Your task to perform on an android device: Add razer huntsman to the cart on target Image 0: 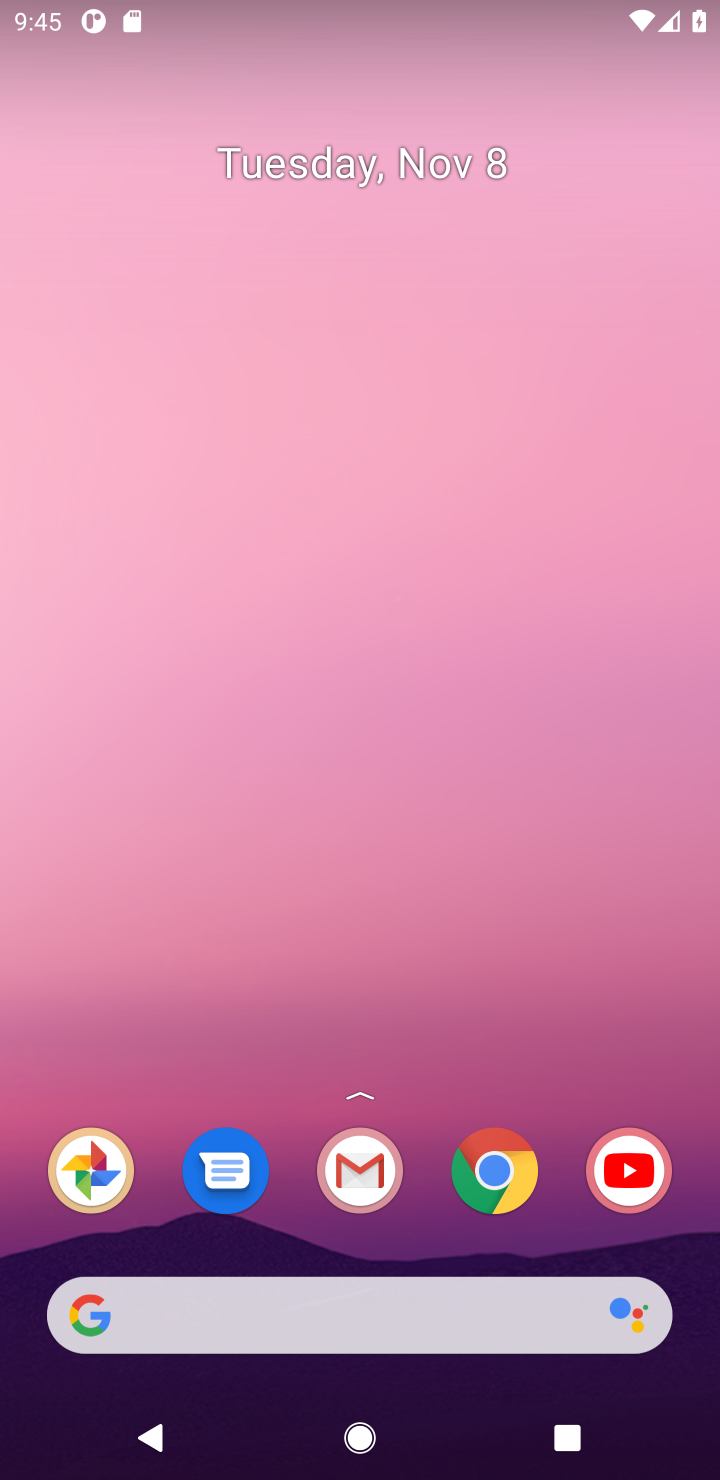
Step 0: press home button
Your task to perform on an android device: Add razer huntsman to the cart on target Image 1: 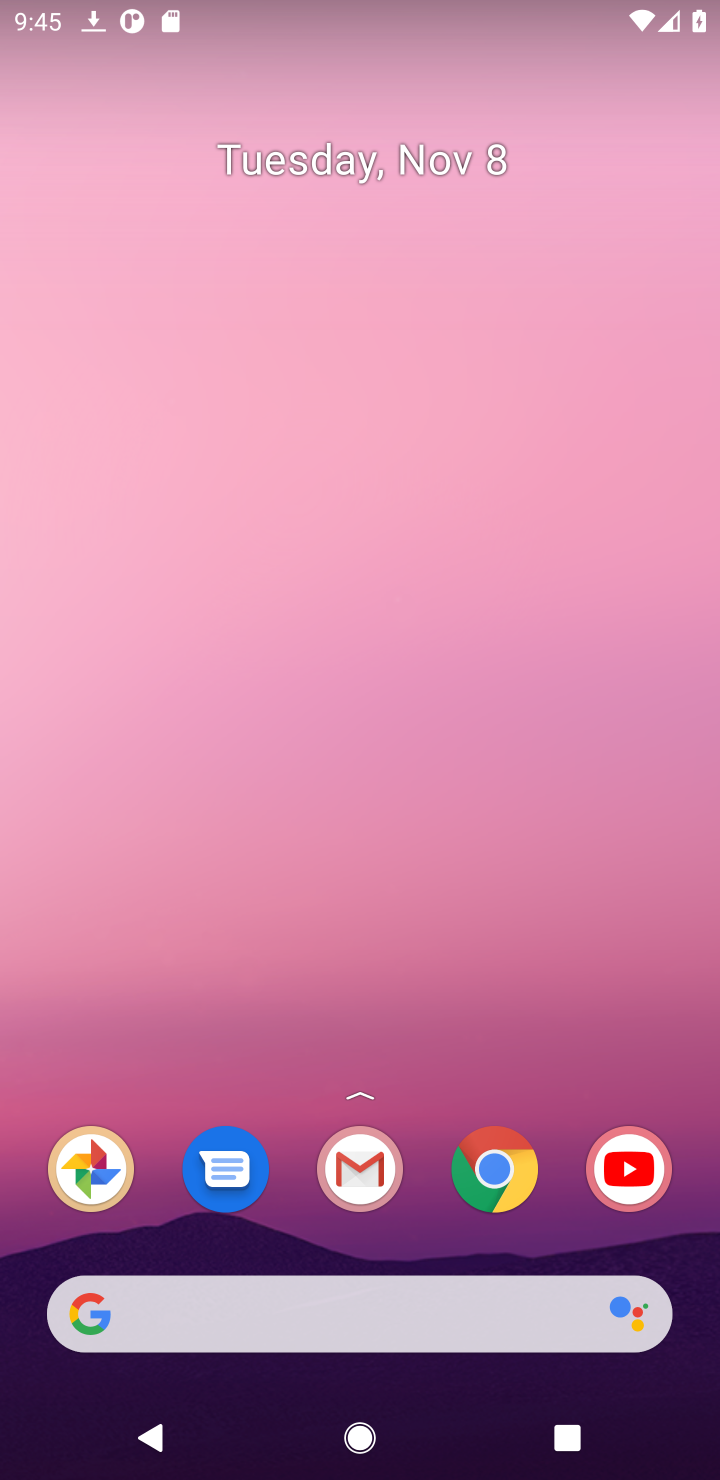
Step 1: click (515, 1157)
Your task to perform on an android device: Add razer huntsman to the cart on target Image 2: 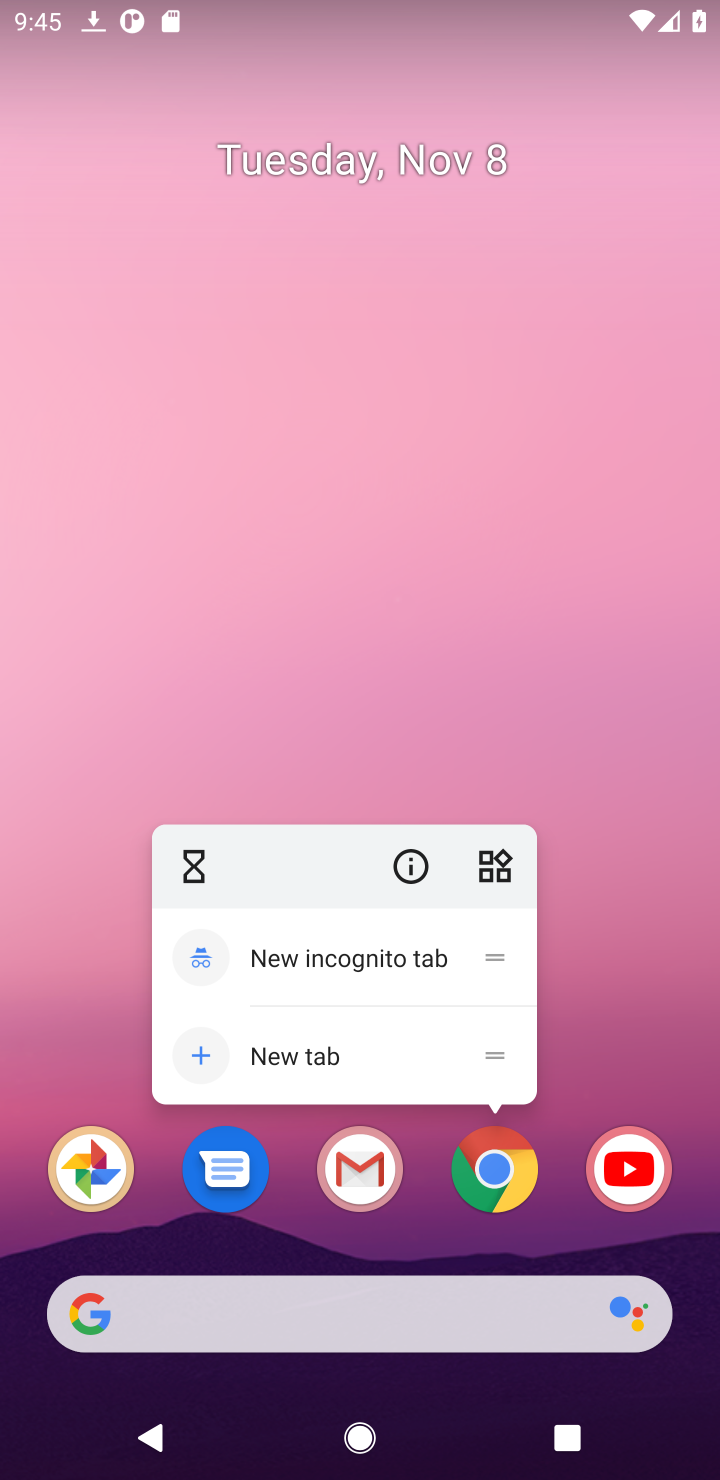
Step 2: click (515, 1157)
Your task to perform on an android device: Add razer huntsman to the cart on target Image 3: 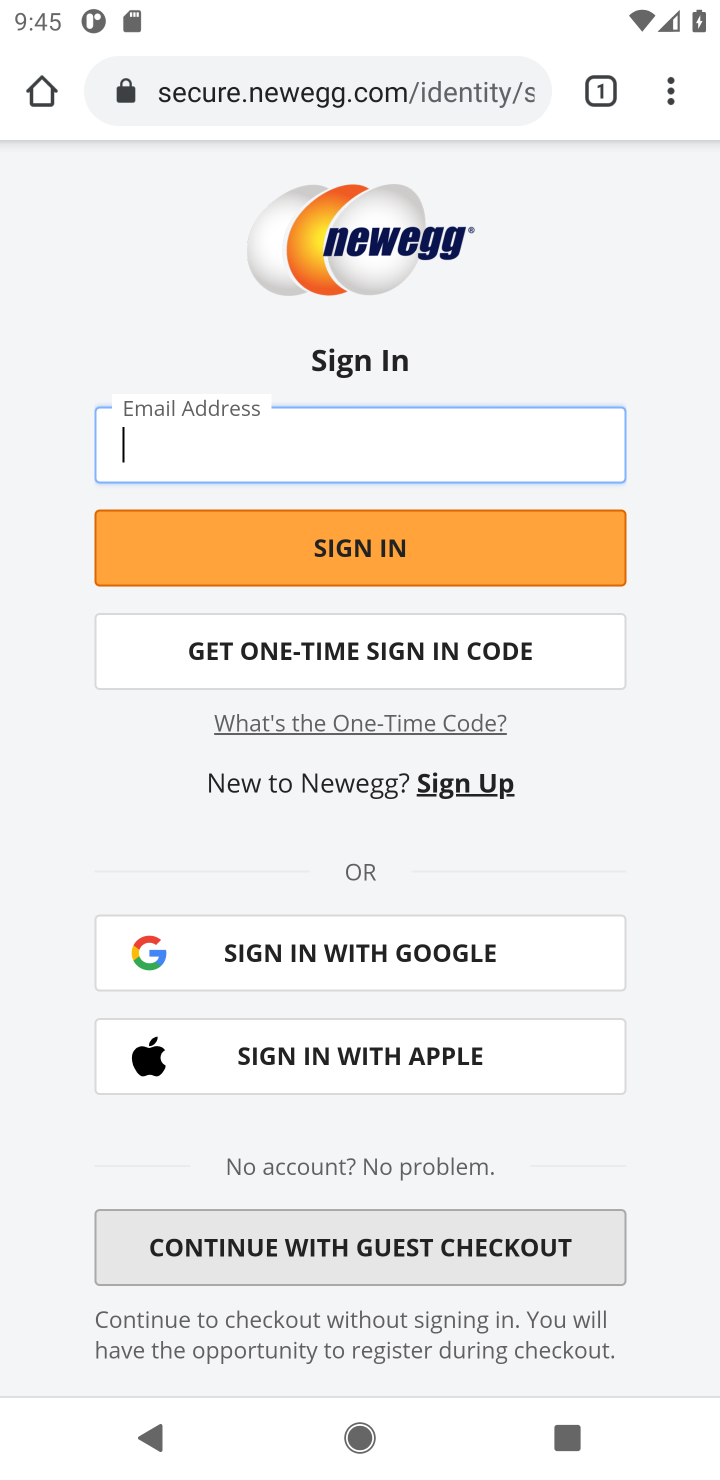
Step 3: click (513, 80)
Your task to perform on an android device: Add razer huntsman to the cart on target Image 4: 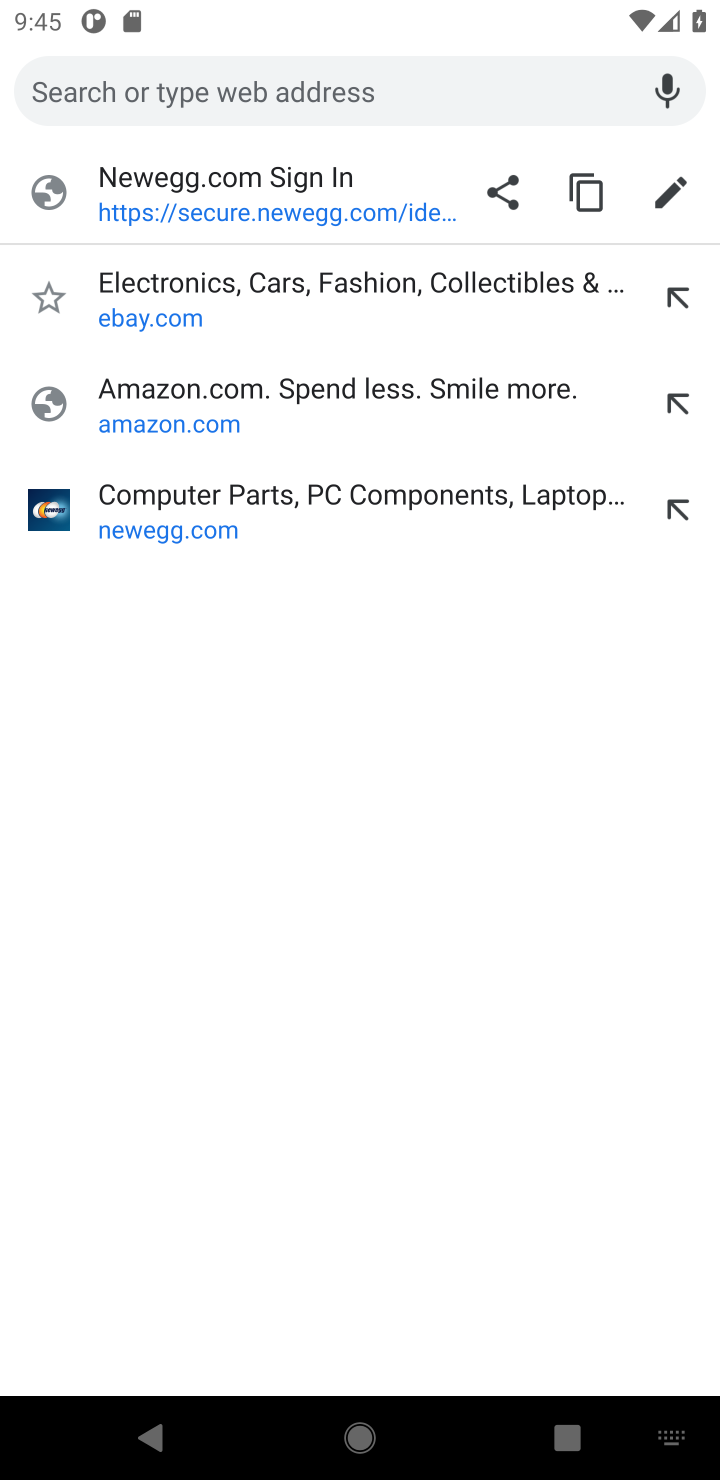
Step 4: press enter
Your task to perform on an android device: Add razer huntsman to the cart on target Image 5: 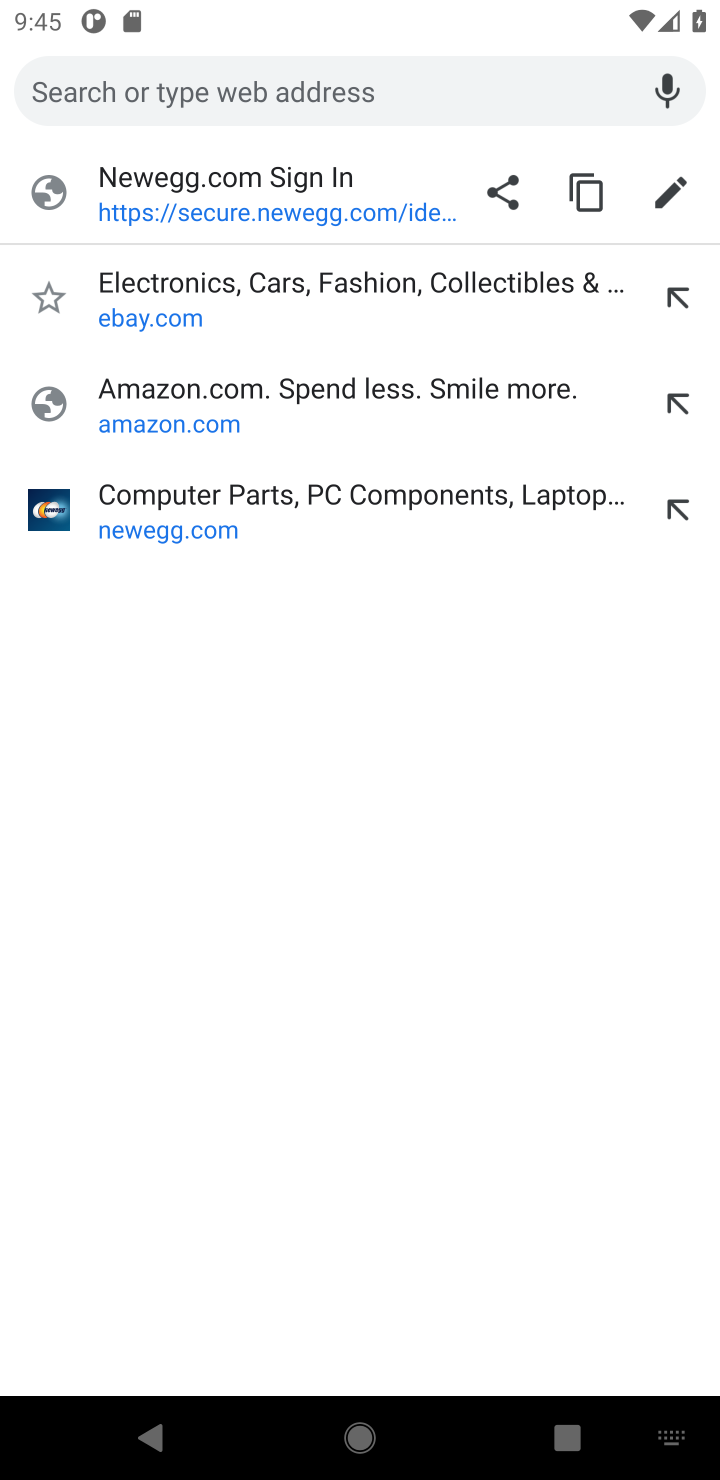
Step 5: type "target"
Your task to perform on an android device: Add razer huntsman to the cart on target Image 6: 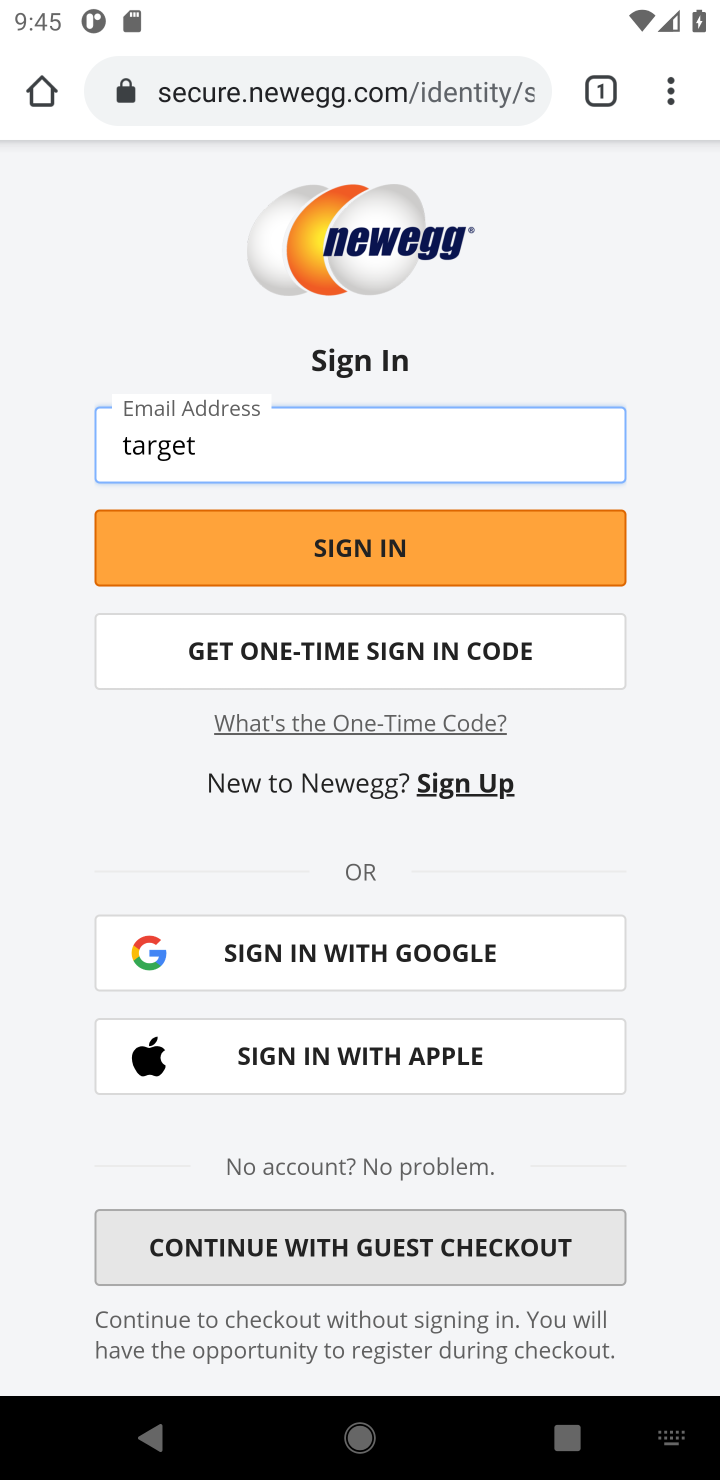
Step 6: click (43, 91)
Your task to perform on an android device: Add razer huntsman to the cart on target Image 7: 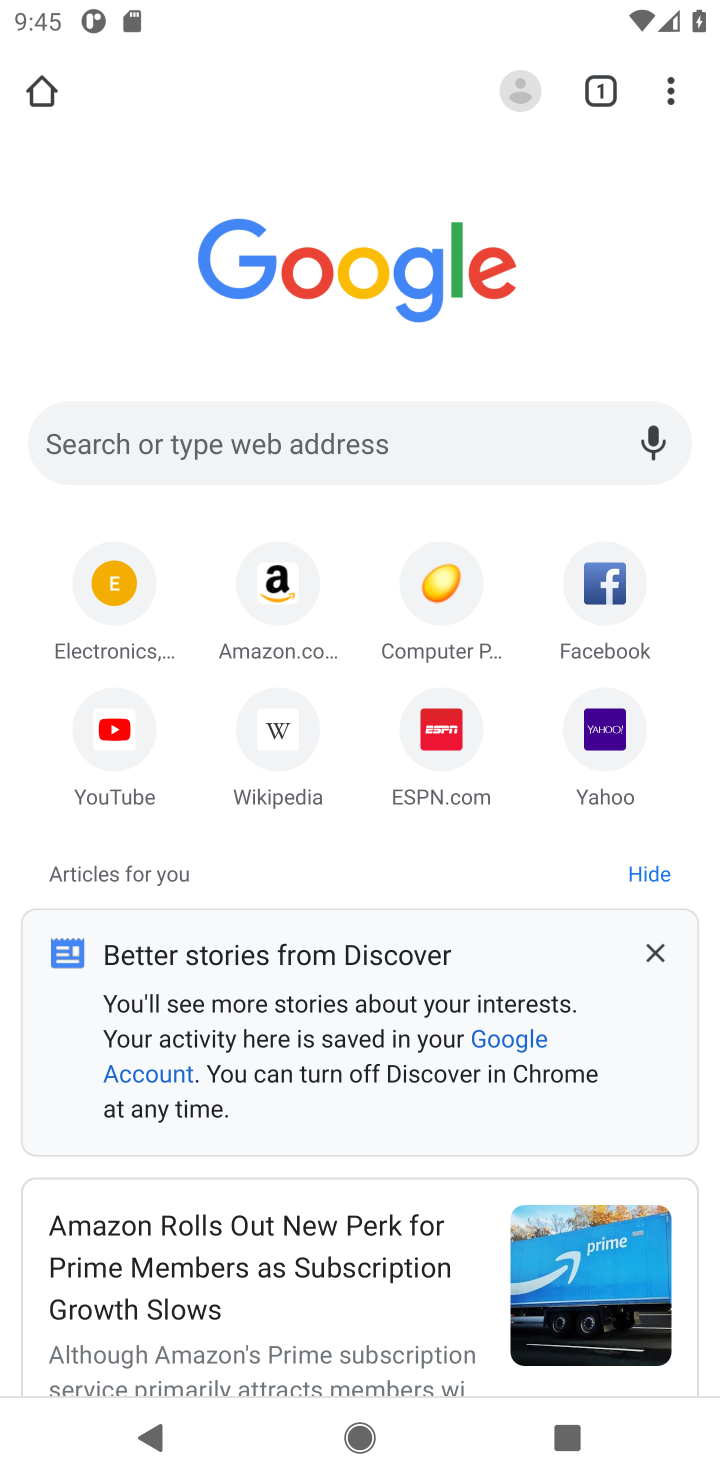
Step 7: click (447, 436)
Your task to perform on an android device: Add razer huntsman to the cart on target Image 8: 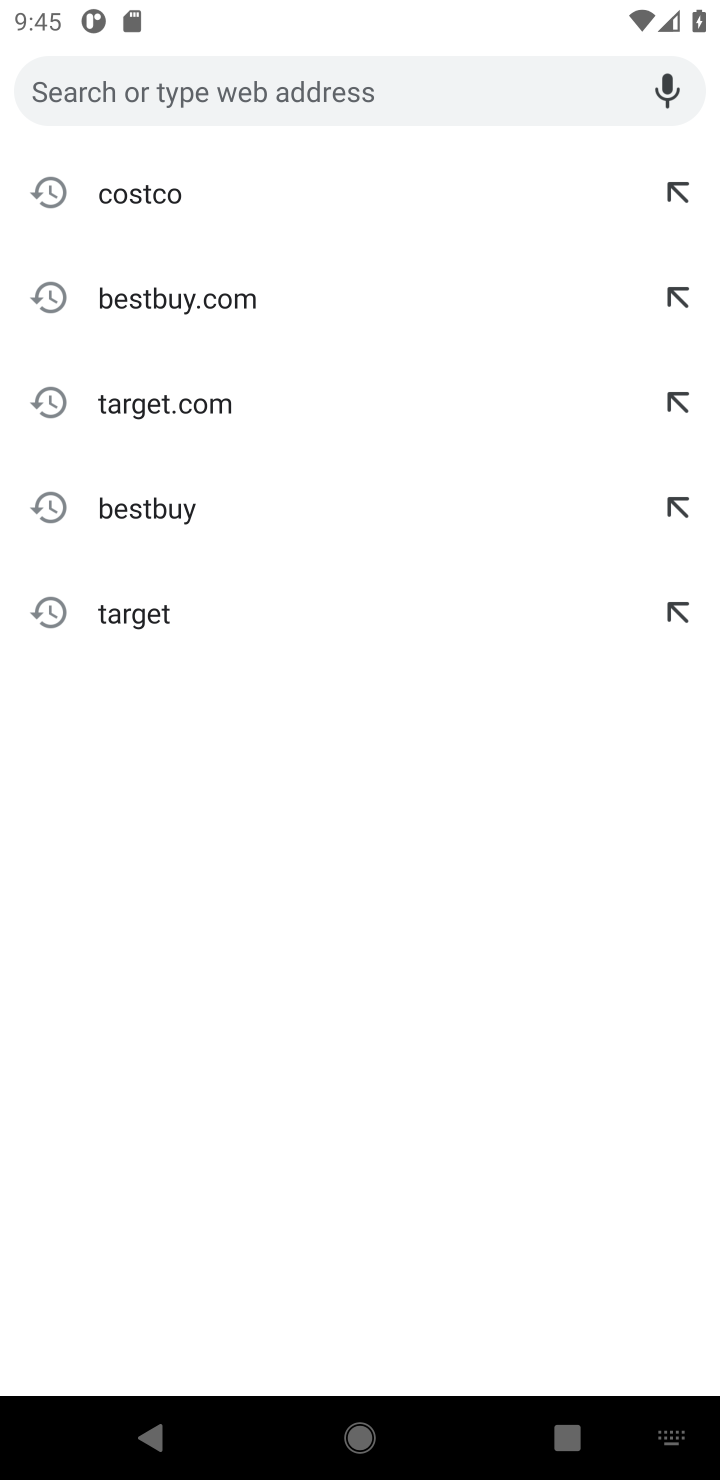
Step 8: click (149, 393)
Your task to perform on an android device: Add razer huntsman to the cart on target Image 9: 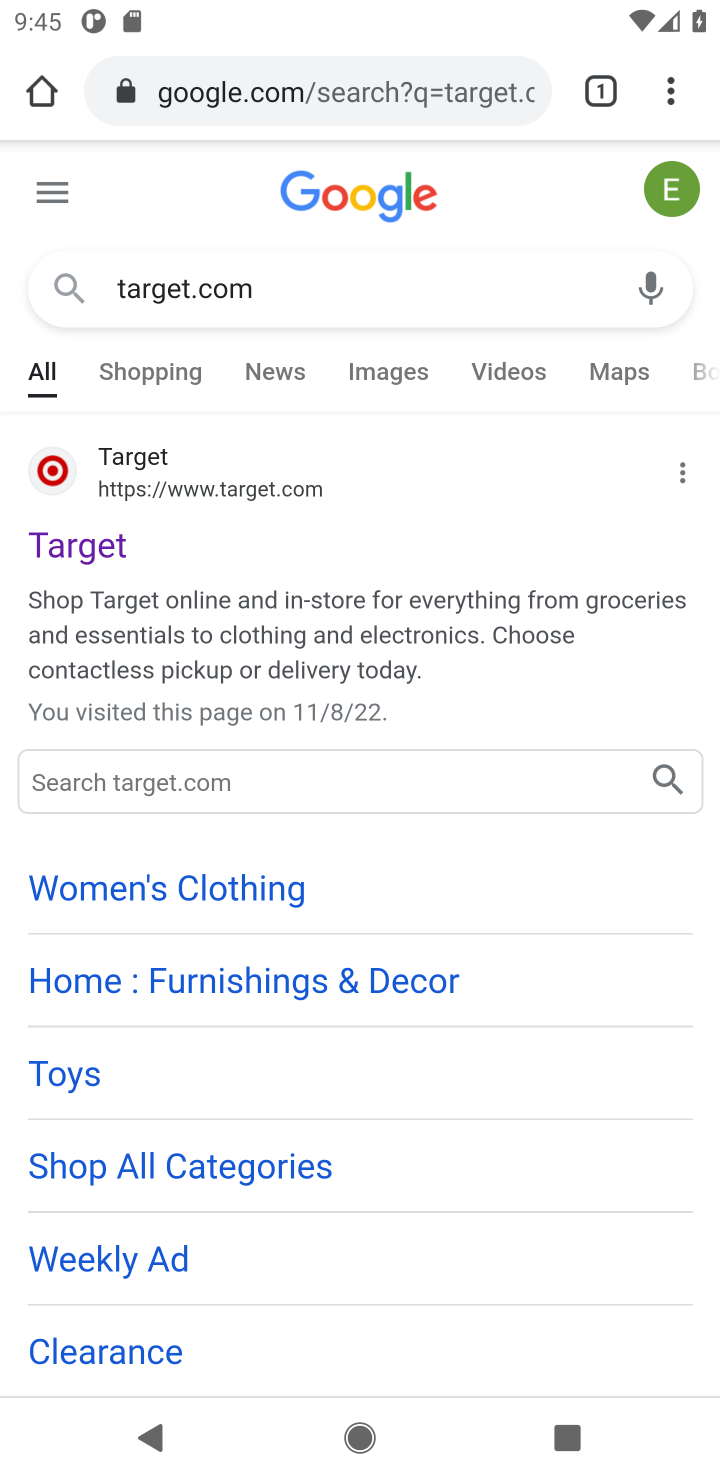
Step 9: click (200, 488)
Your task to perform on an android device: Add razer huntsman to the cart on target Image 10: 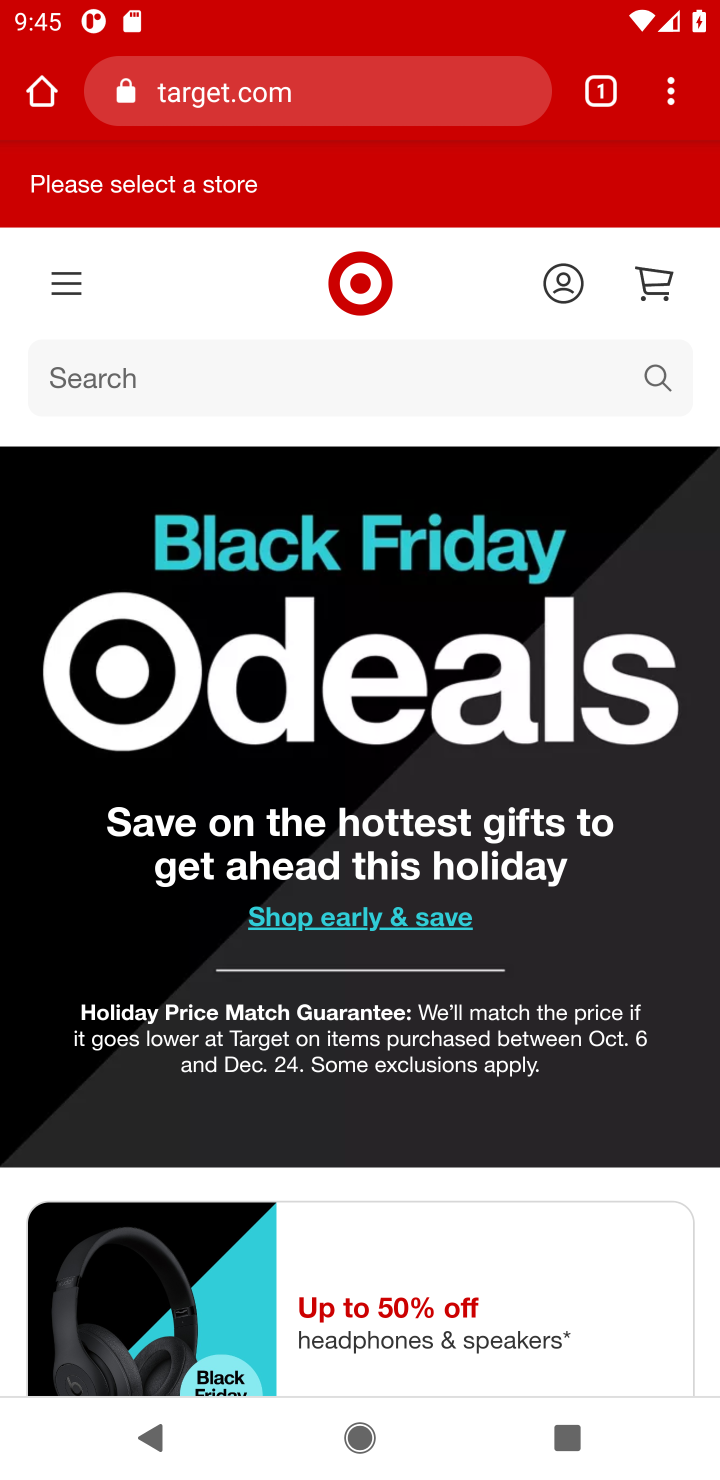
Step 10: click (654, 387)
Your task to perform on an android device: Add razer huntsman to the cart on target Image 11: 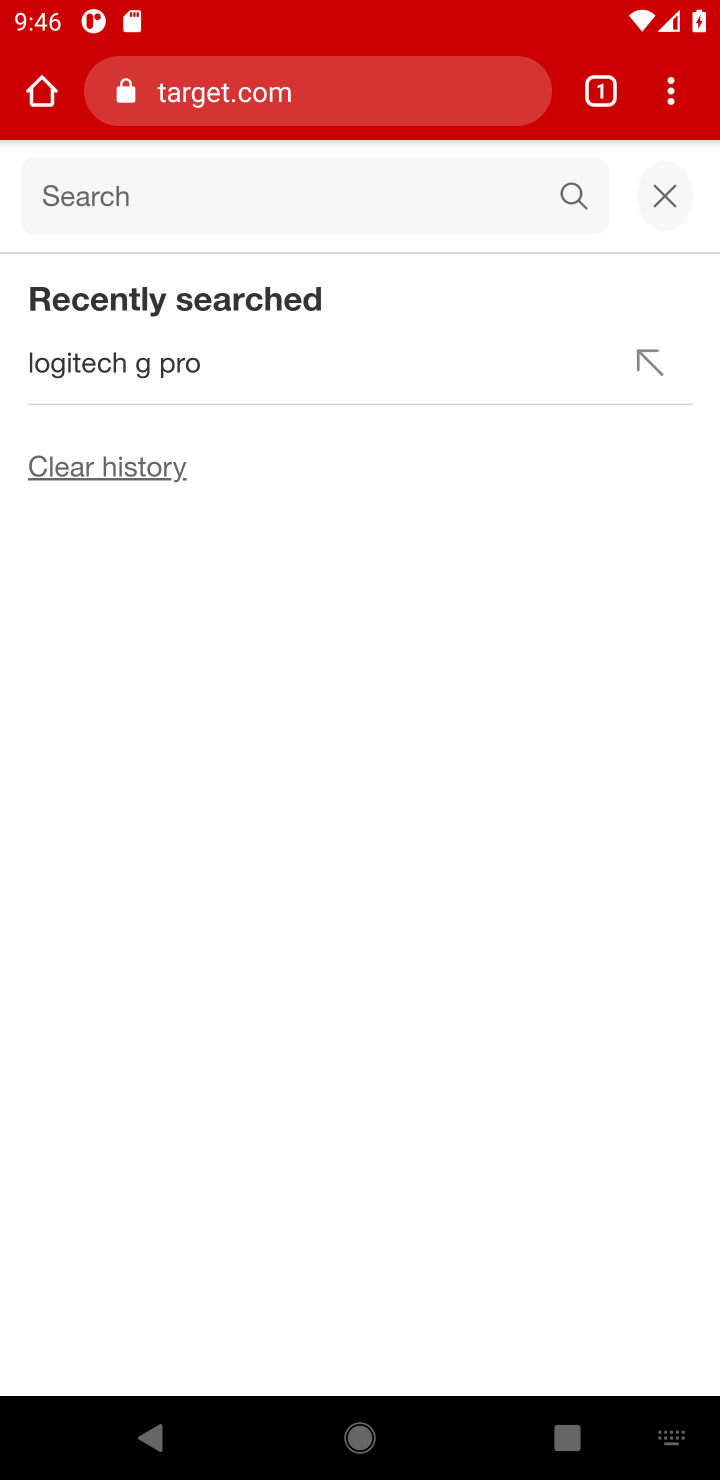
Step 11: type "razer huntsman"
Your task to perform on an android device: Add razer huntsman to the cart on target Image 12: 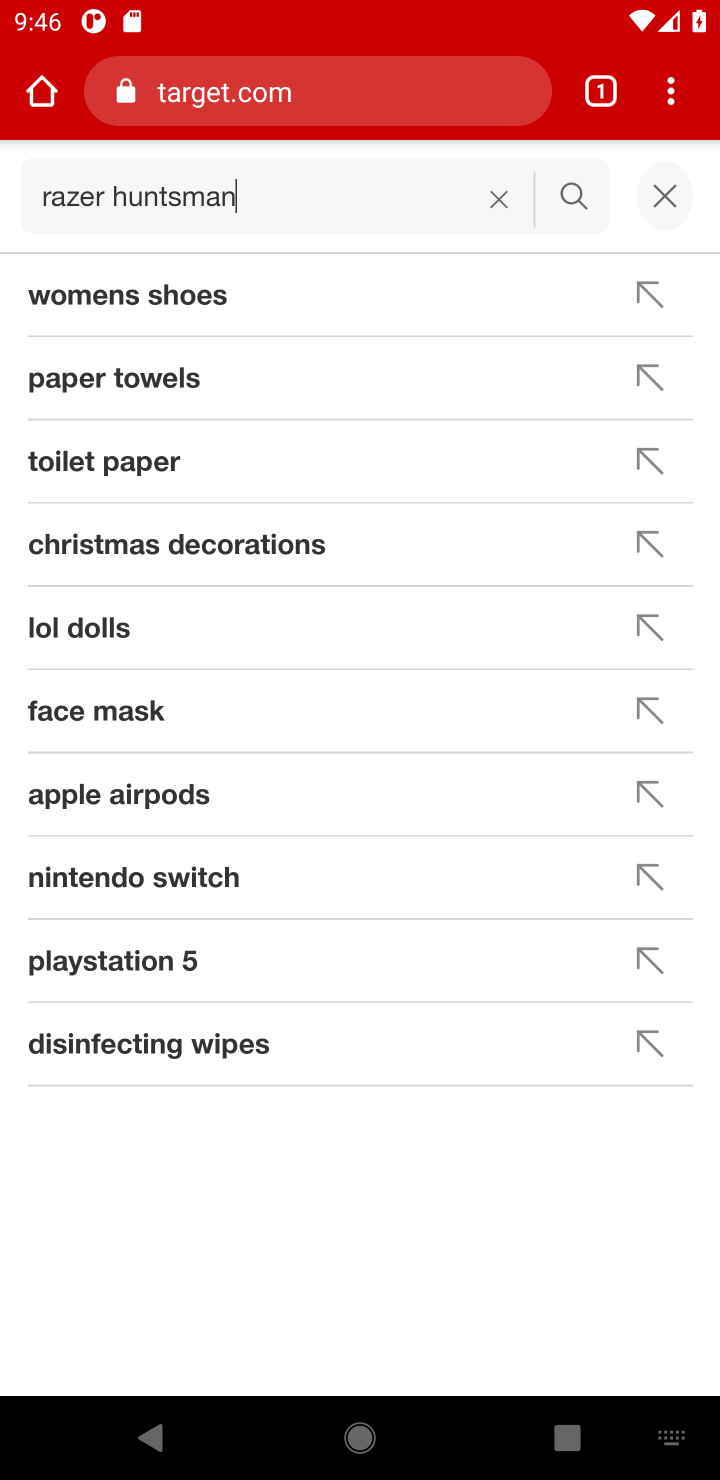
Step 12: press enter
Your task to perform on an android device: Add razer huntsman to the cart on target Image 13: 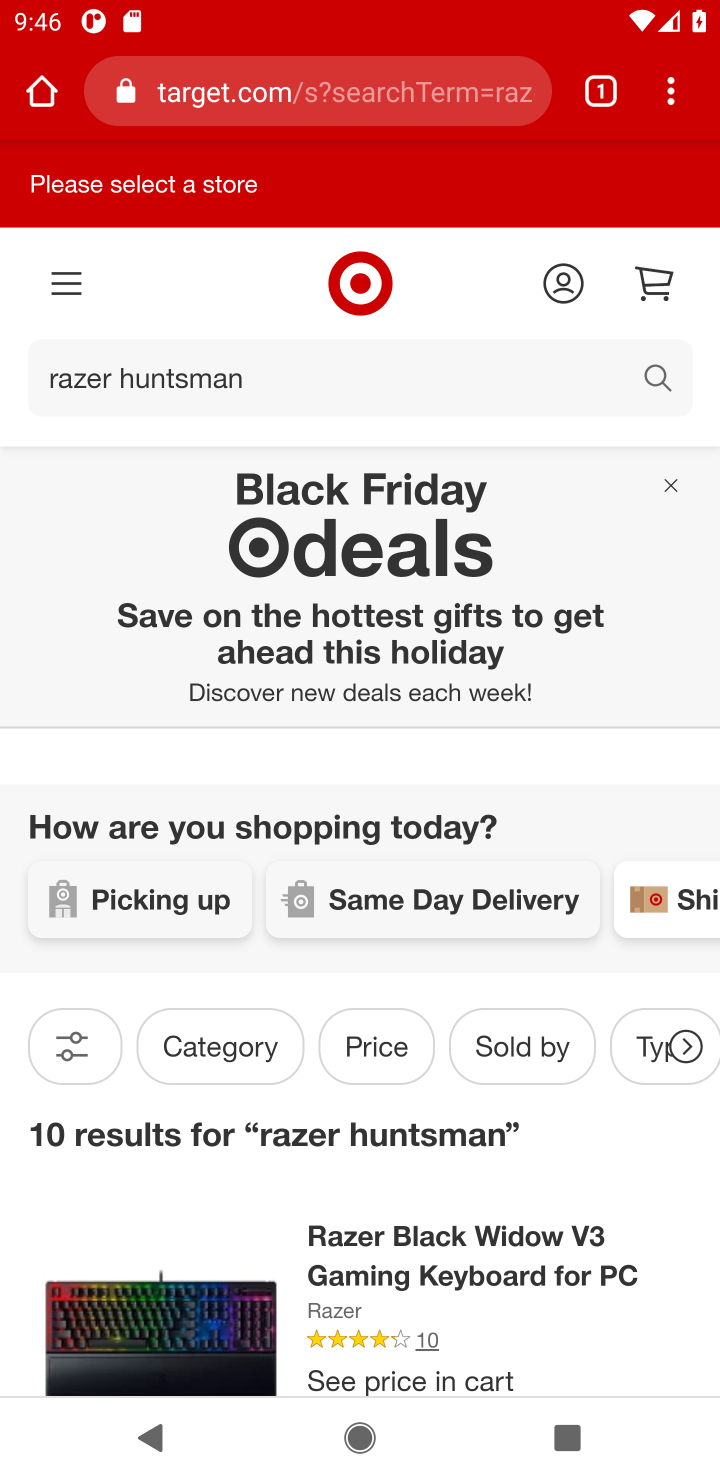
Step 13: drag from (624, 1317) to (446, 533)
Your task to perform on an android device: Add razer huntsman to the cart on target Image 14: 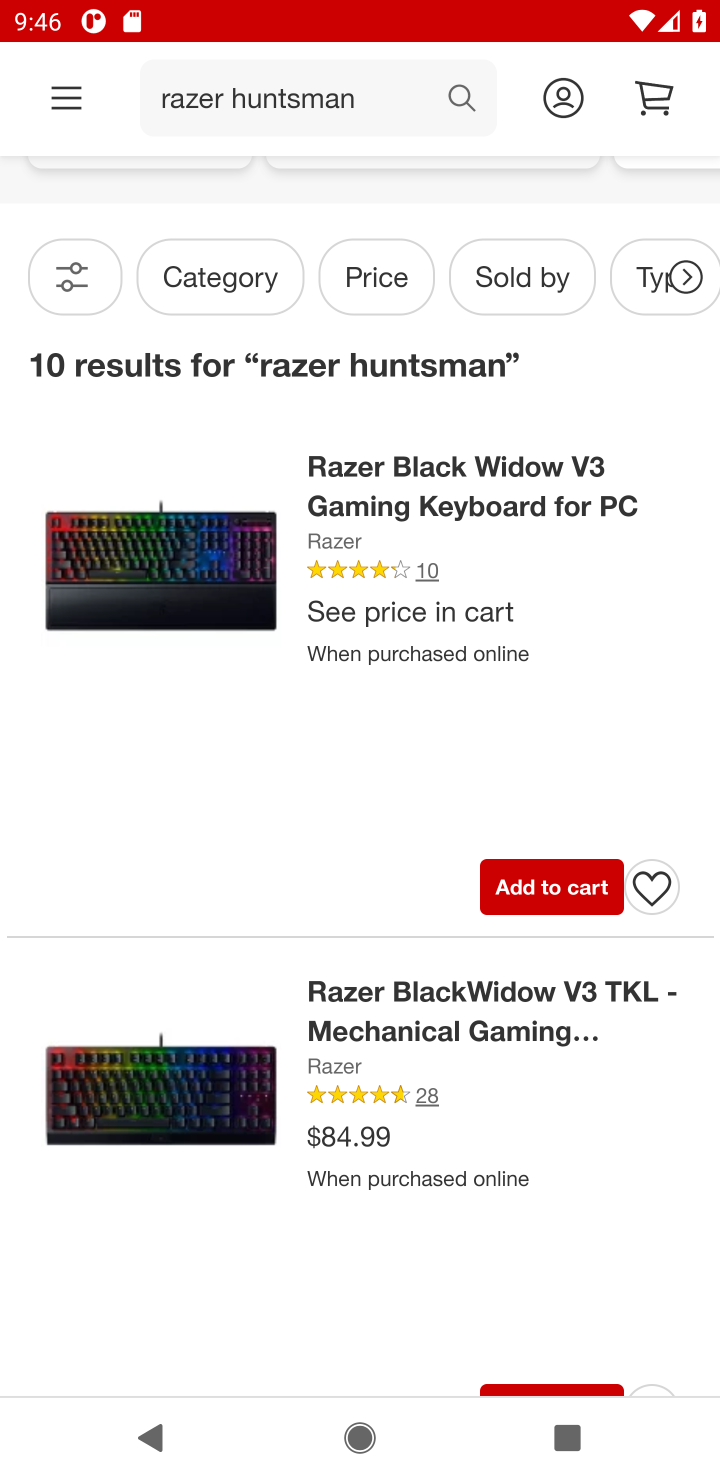
Step 14: drag from (532, 1271) to (495, 543)
Your task to perform on an android device: Add razer huntsman to the cart on target Image 15: 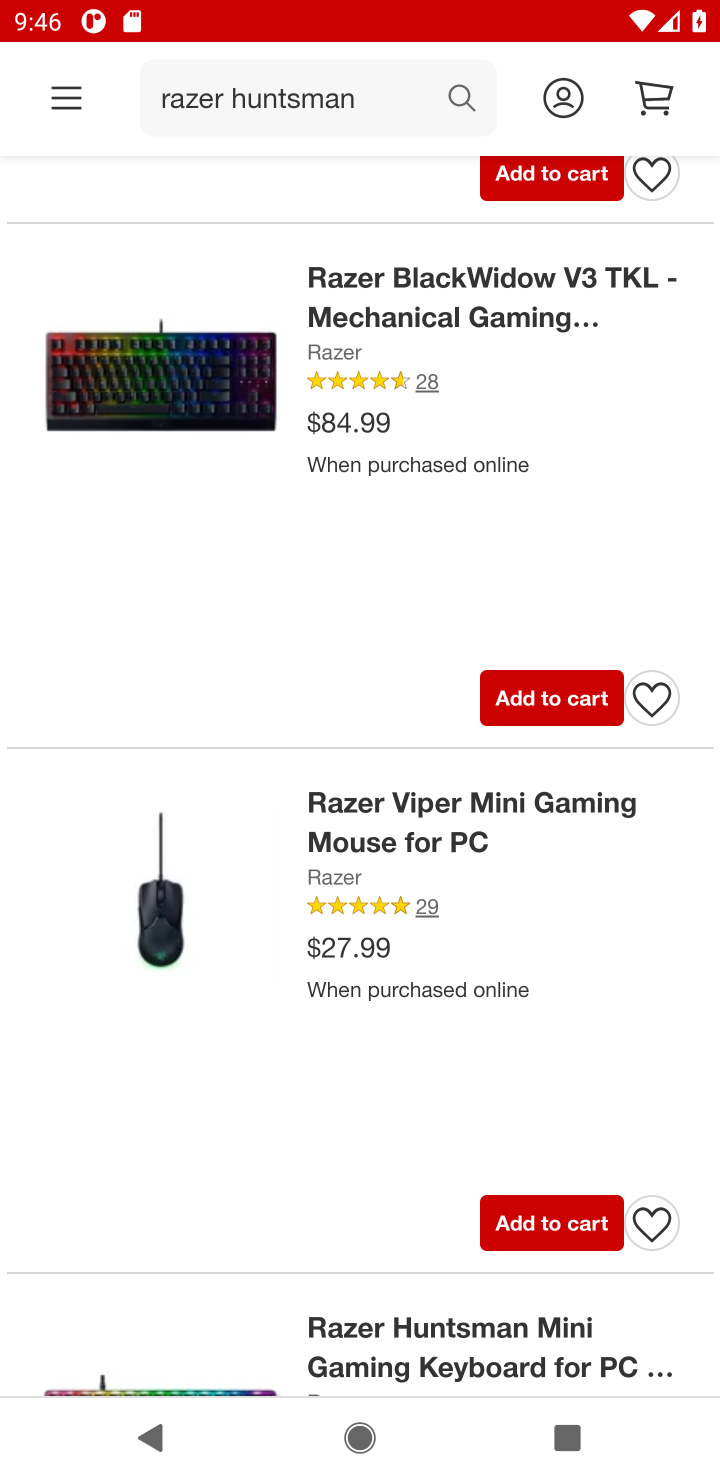
Step 15: drag from (360, 1105) to (406, 651)
Your task to perform on an android device: Add razer huntsman to the cart on target Image 16: 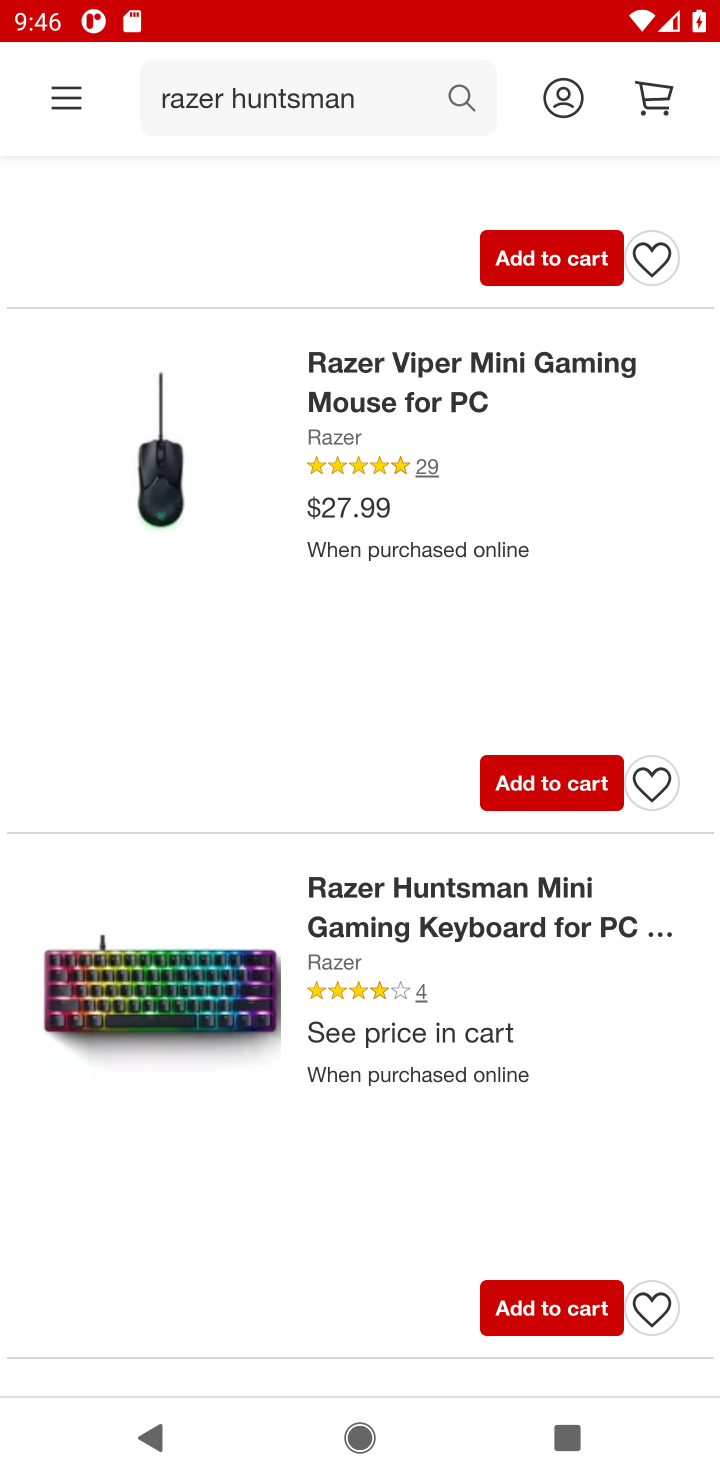
Step 16: click (188, 974)
Your task to perform on an android device: Add razer huntsman to the cart on target Image 17: 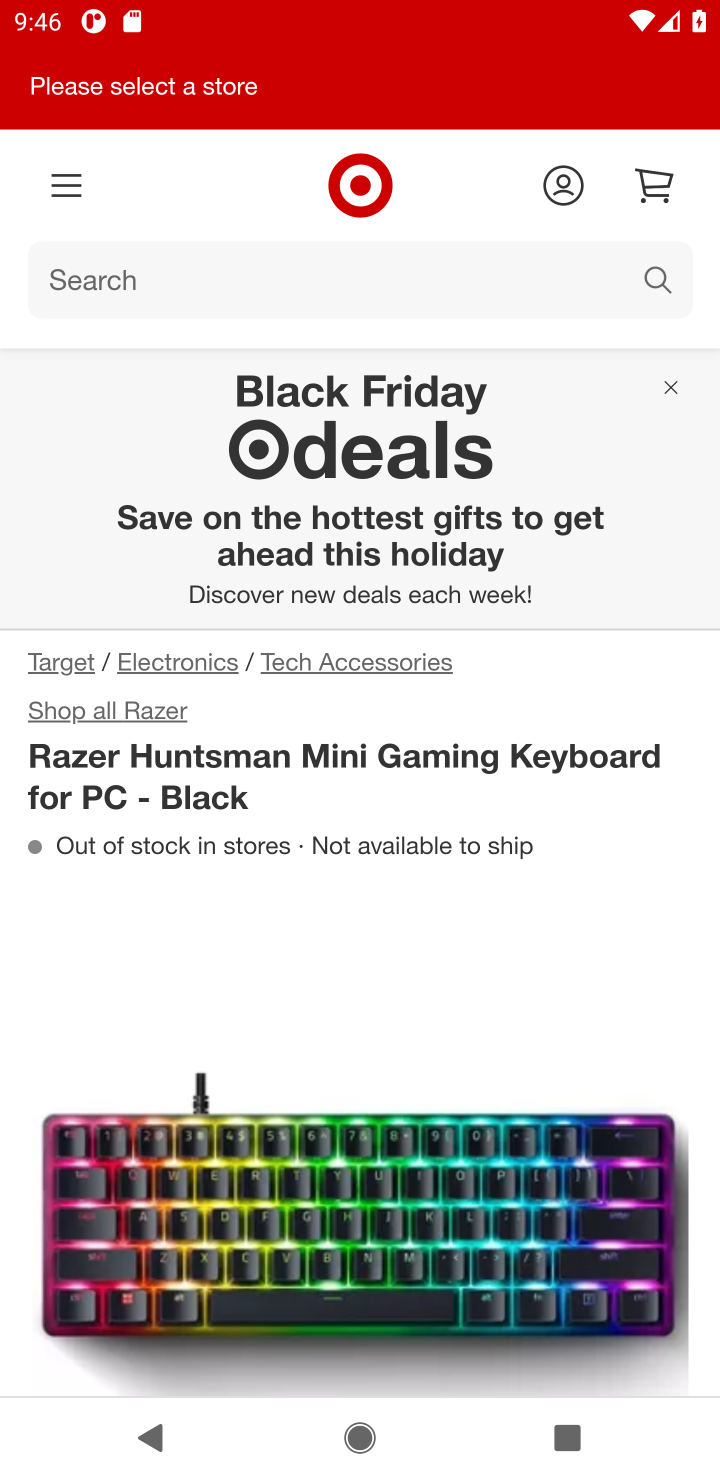
Step 17: drag from (303, 1000) to (474, 256)
Your task to perform on an android device: Add razer huntsman to the cart on target Image 18: 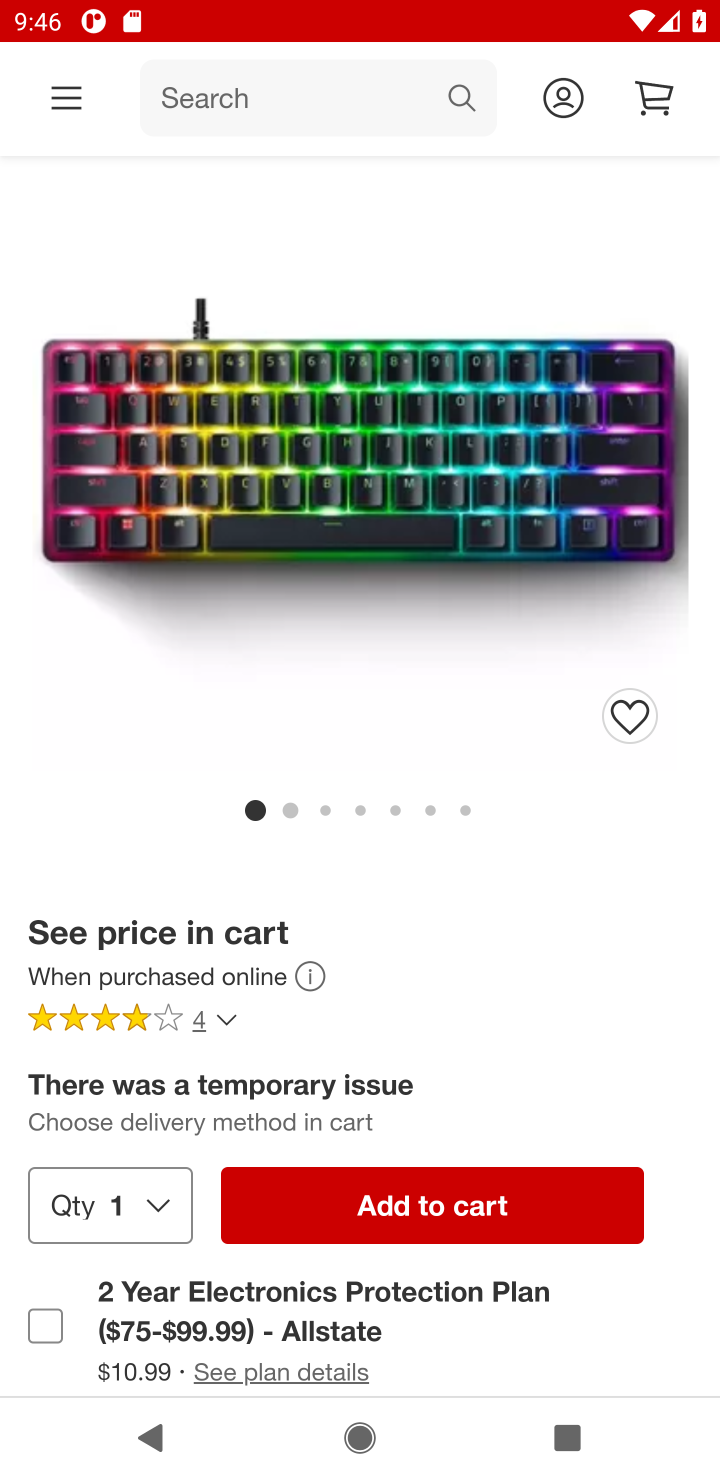
Step 18: click (456, 1202)
Your task to perform on an android device: Add razer huntsman to the cart on target Image 19: 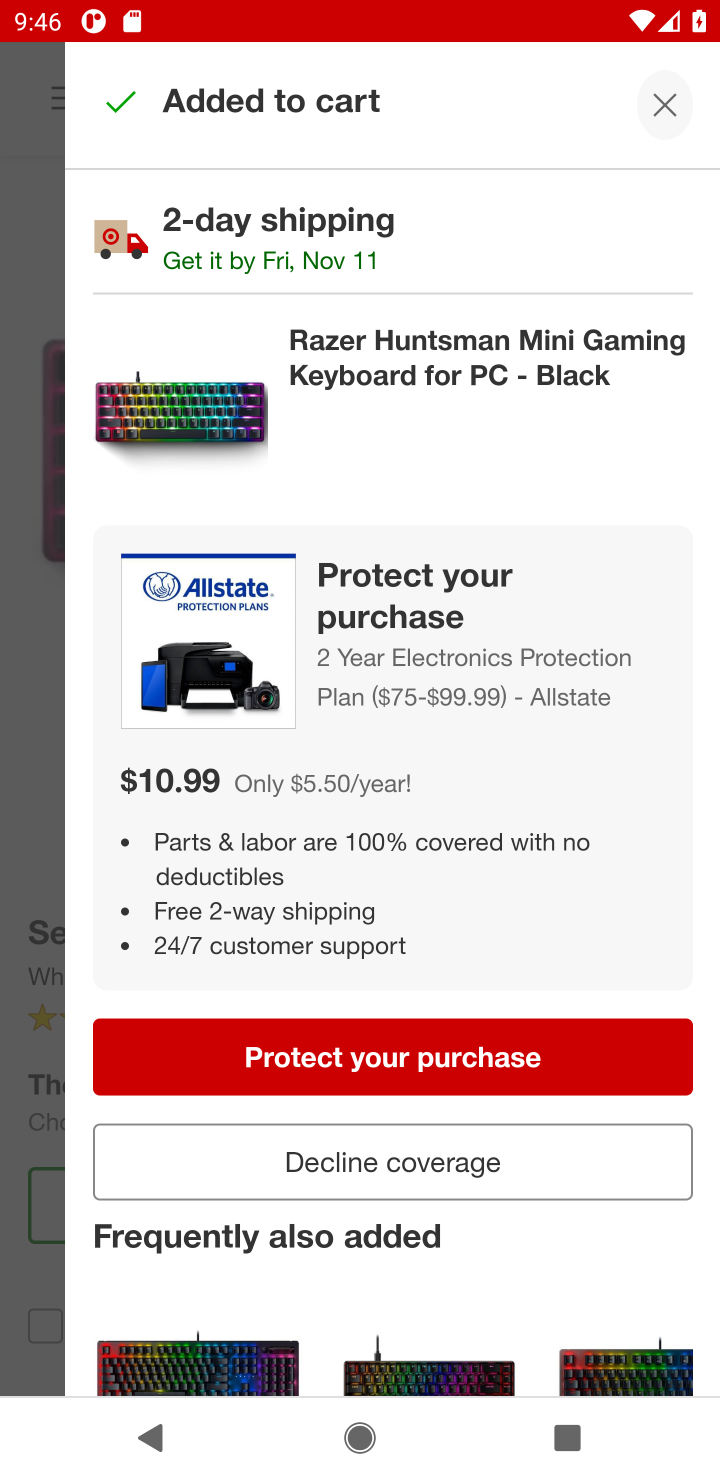
Step 19: click (649, 91)
Your task to perform on an android device: Add razer huntsman to the cart on target Image 20: 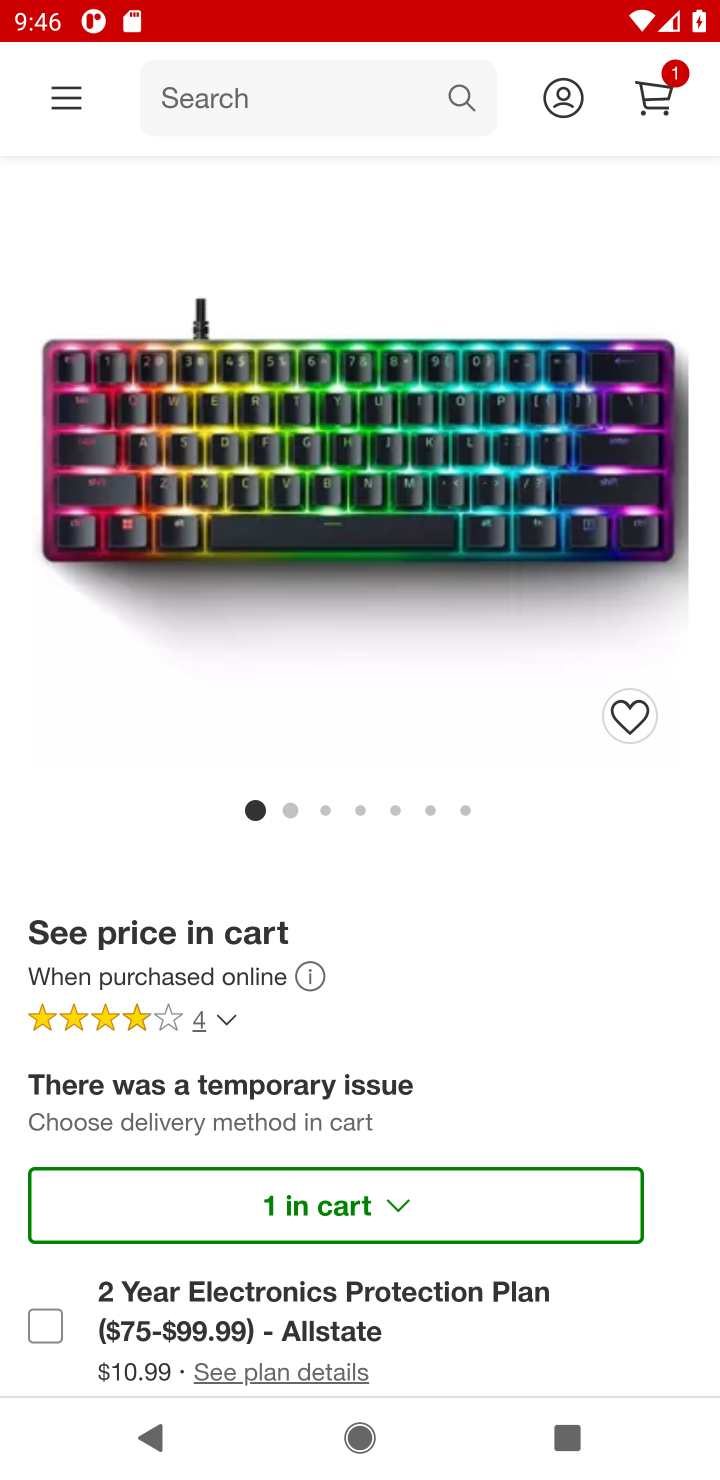
Step 20: task complete